Your task to perform on an android device: Go to notification settings Image 0: 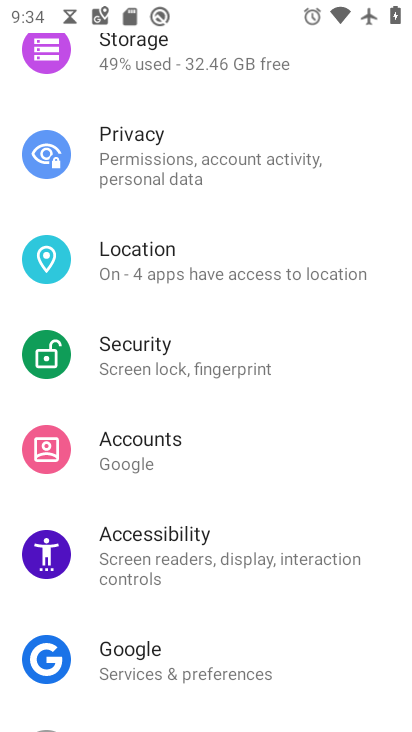
Step 0: drag from (212, 157) to (297, 693)
Your task to perform on an android device: Go to notification settings Image 1: 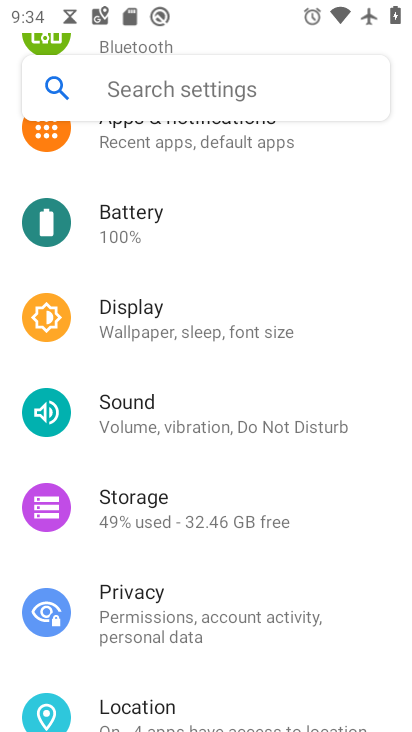
Step 1: drag from (228, 174) to (286, 608)
Your task to perform on an android device: Go to notification settings Image 2: 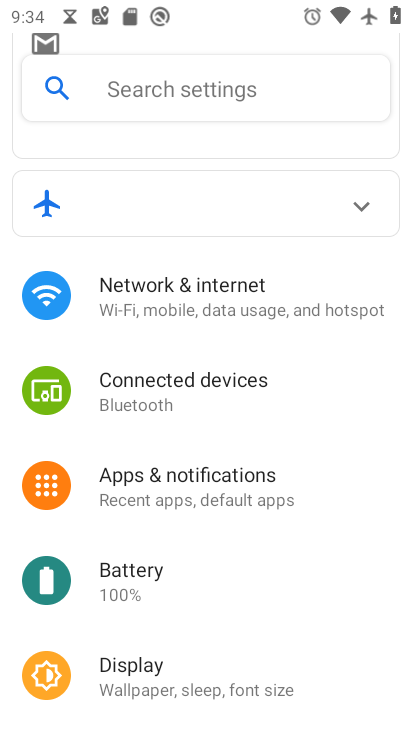
Step 2: click (212, 482)
Your task to perform on an android device: Go to notification settings Image 3: 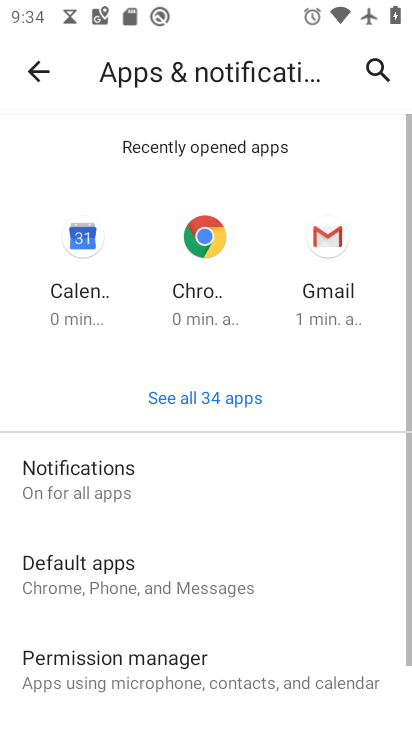
Step 3: click (60, 489)
Your task to perform on an android device: Go to notification settings Image 4: 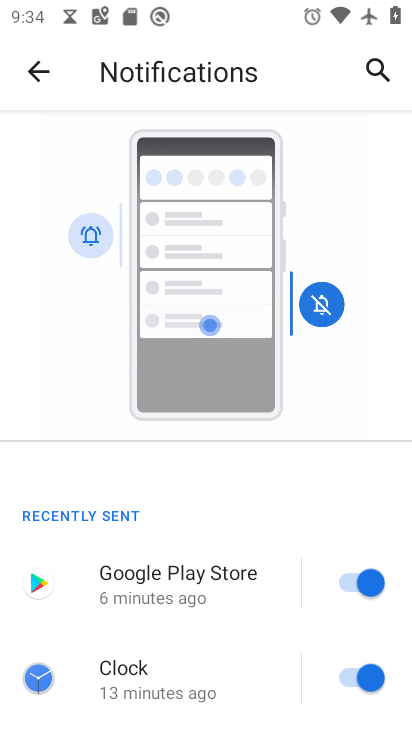
Step 4: task complete